Your task to perform on an android device: When is my next meeting? Image 0: 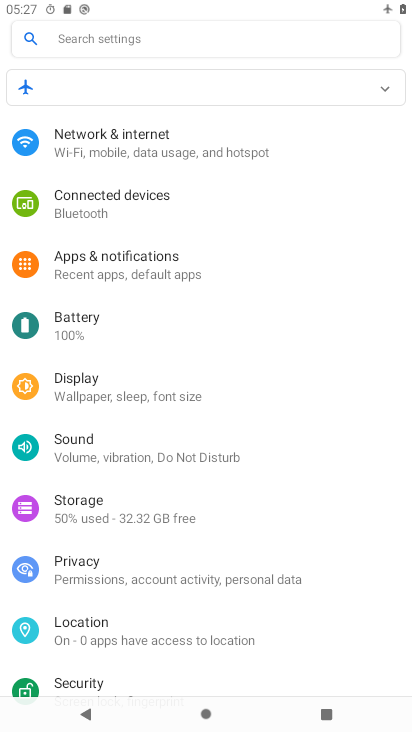
Step 0: drag from (285, 519) to (253, 10)
Your task to perform on an android device: When is my next meeting? Image 1: 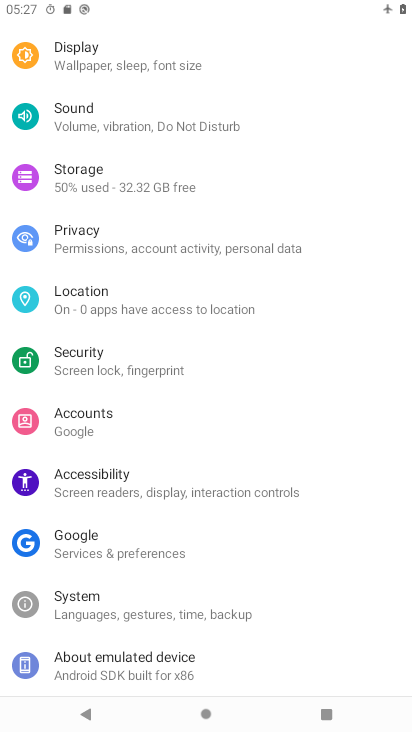
Step 1: press home button
Your task to perform on an android device: When is my next meeting? Image 2: 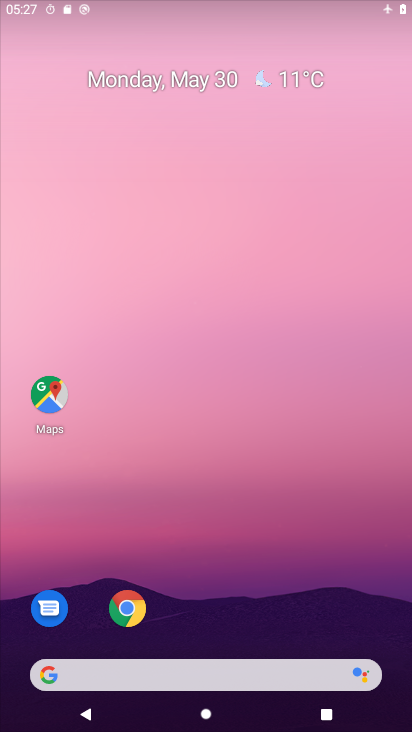
Step 2: drag from (290, 383) to (245, 19)
Your task to perform on an android device: When is my next meeting? Image 3: 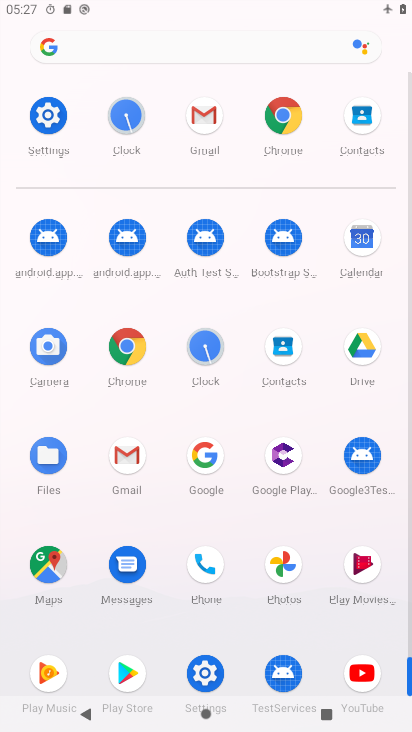
Step 3: click (362, 250)
Your task to perform on an android device: When is my next meeting? Image 4: 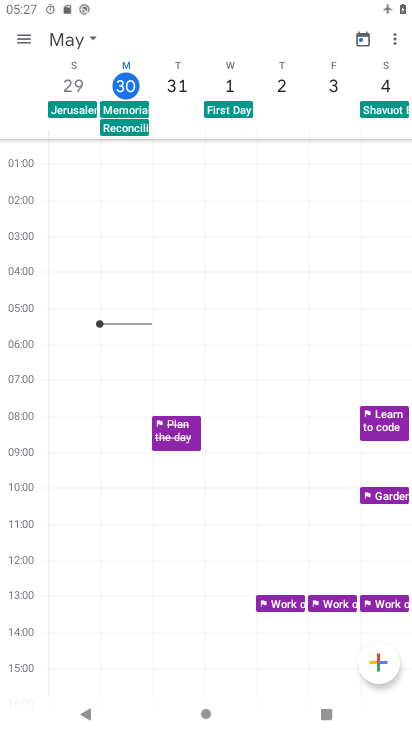
Step 4: task complete